Your task to perform on an android device: Toggle the flashlight Image 0: 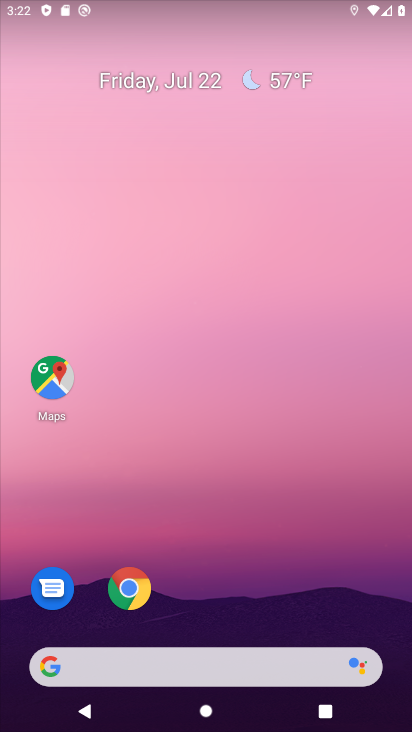
Step 0: drag from (226, 636) to (183, 74)
Your task to perform on an android device: Toggle the flashlight Image 1: 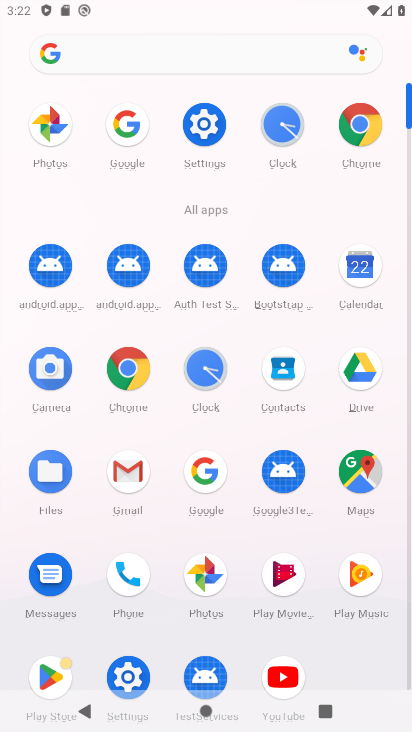
Step 1: click (201, 132)
Your task to perform on an android device: Toggle the flashlight Image 2: 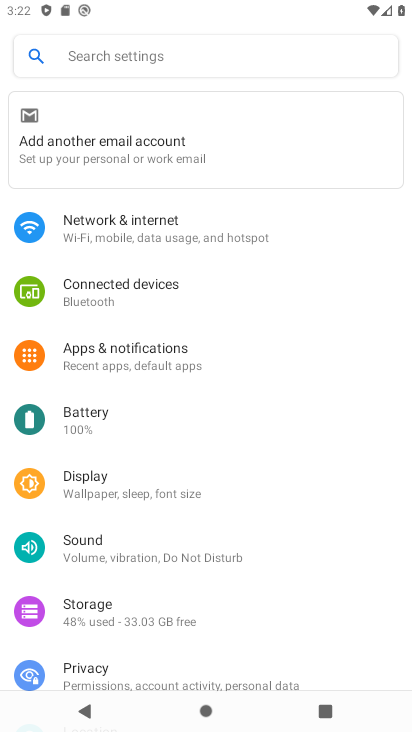
Step 2: task complete